Your task to perform on an android device: turn off location Image 0: 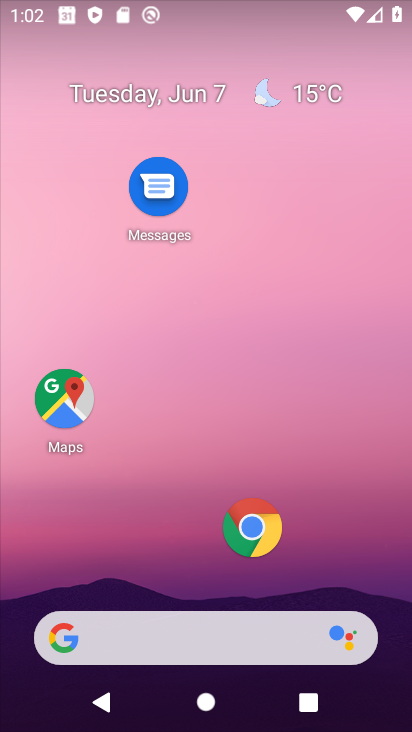
Step 0: drag from (232, 614) to (232, 273)
Your task to perform on an android device: turn off location Image 1: 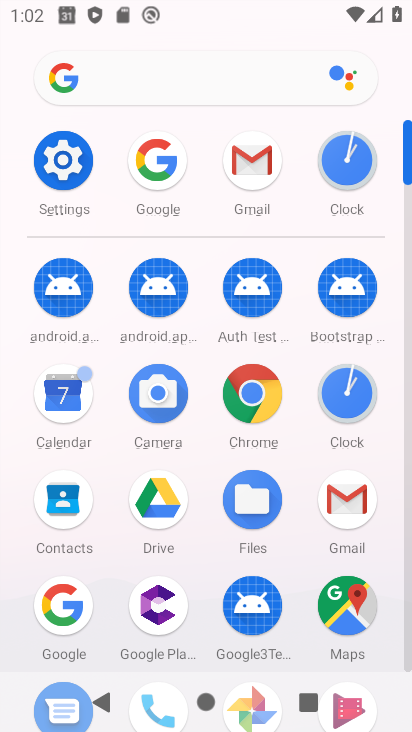
Step 1: drag from (245, 599) to (247, 282)
Your task to perform on an android device: turn off location Image 2: 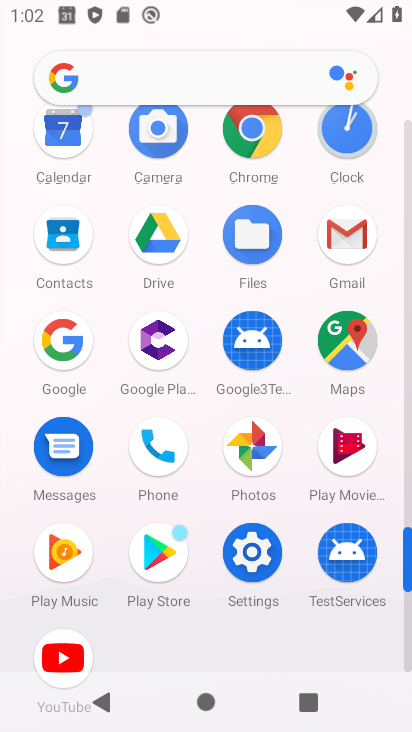
Step 2: click (263, 556)
Your task to perform on an android device: turn off location Image 3: 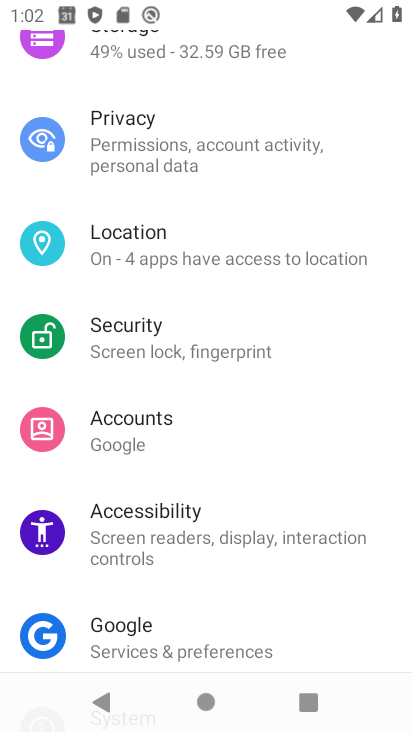
Step 3: click (178, 273)
Your task to perform on an android device: turn off location Image 4: 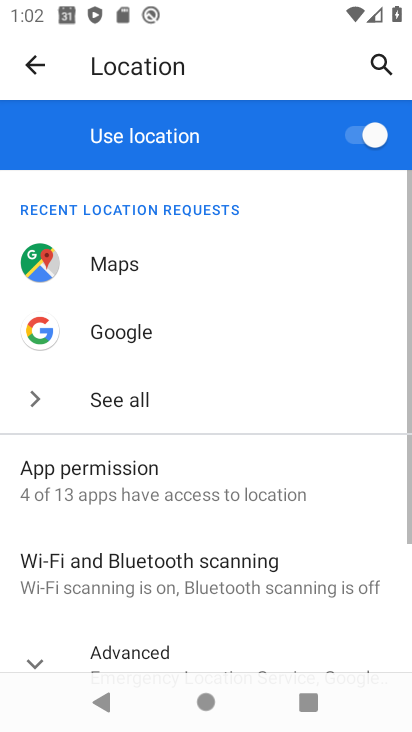
Step 4: click (359, 143)
Your task to perform on an android device: turn off location Image 5: 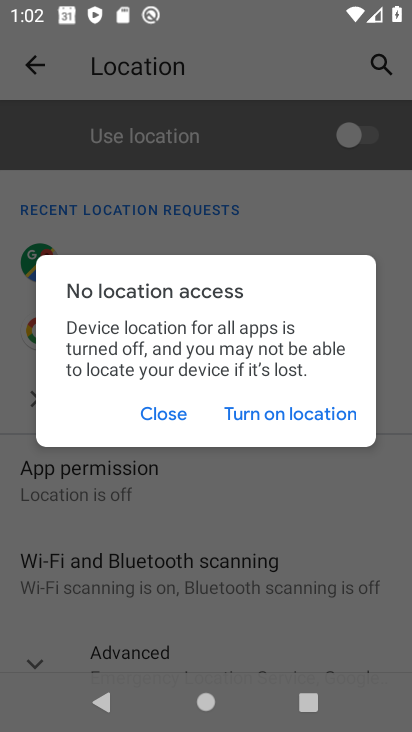
Step 5: click (156, 410)
Your task to perform on an android device: turn off location Image 6: 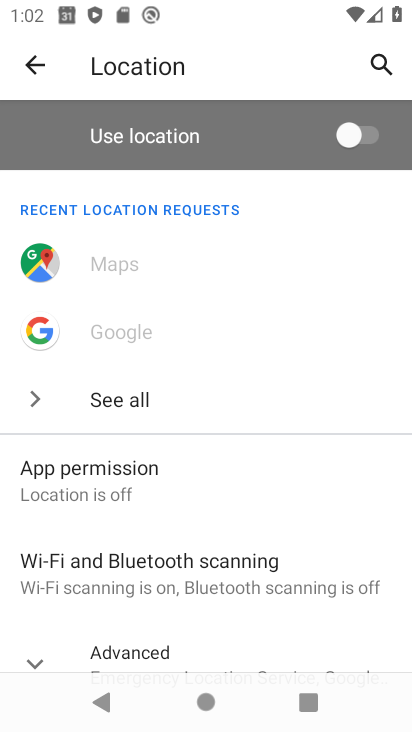
Step 6: task complete